Your task to perform on an android device: open a new tab in the chrome app Image 0: 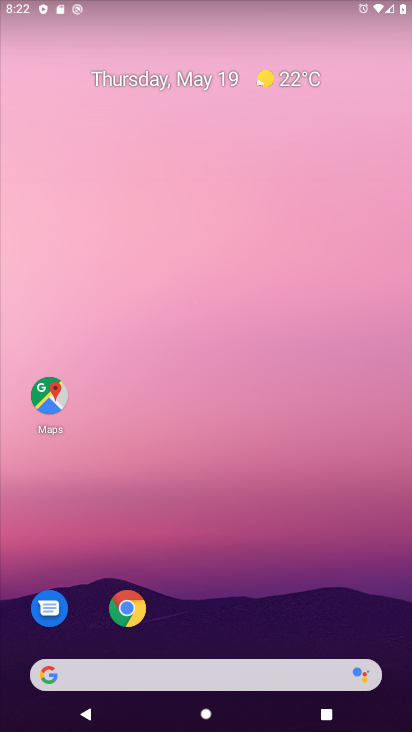
Step 0: click (118, 615)
Your task to perform on an android device: open a new tab in the chrome app Image 1: 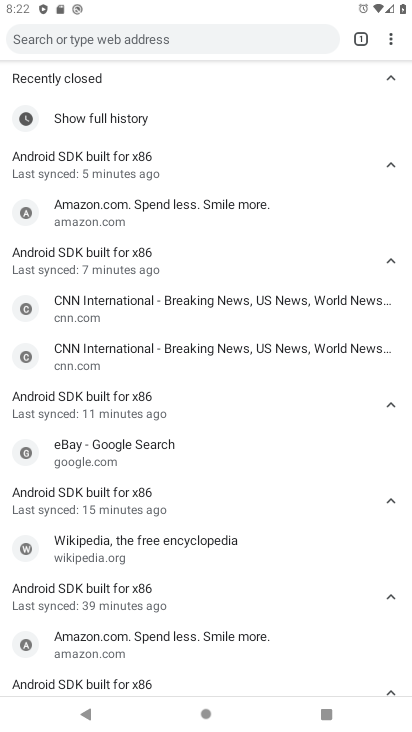
Step 1: click (385, 38)
Your task to perform on an android device: open a new tab in the chrome app Image 2: 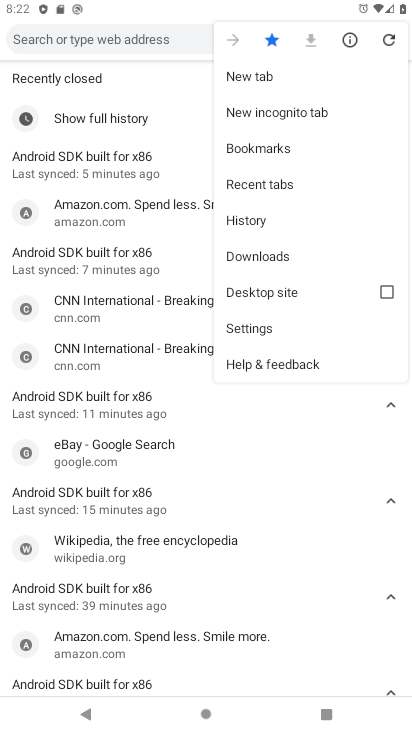
Step 2: click (319, 70)
Your task to perform on an android device: open a new tab in the chrome app Image 3: 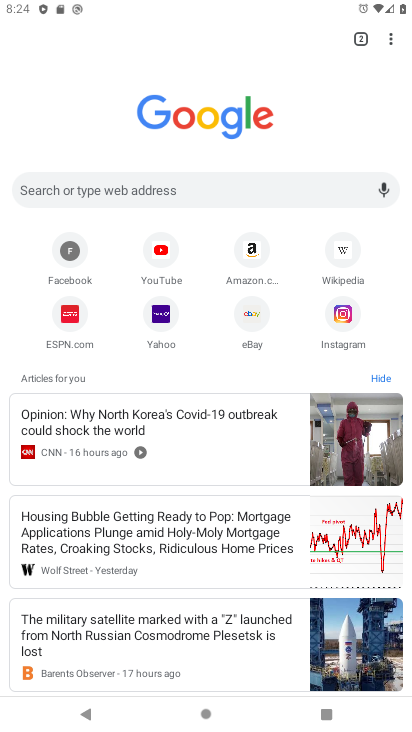
Step 3: task complete